Your task to perform on an android device: uninstall "Cash App" Image 0: 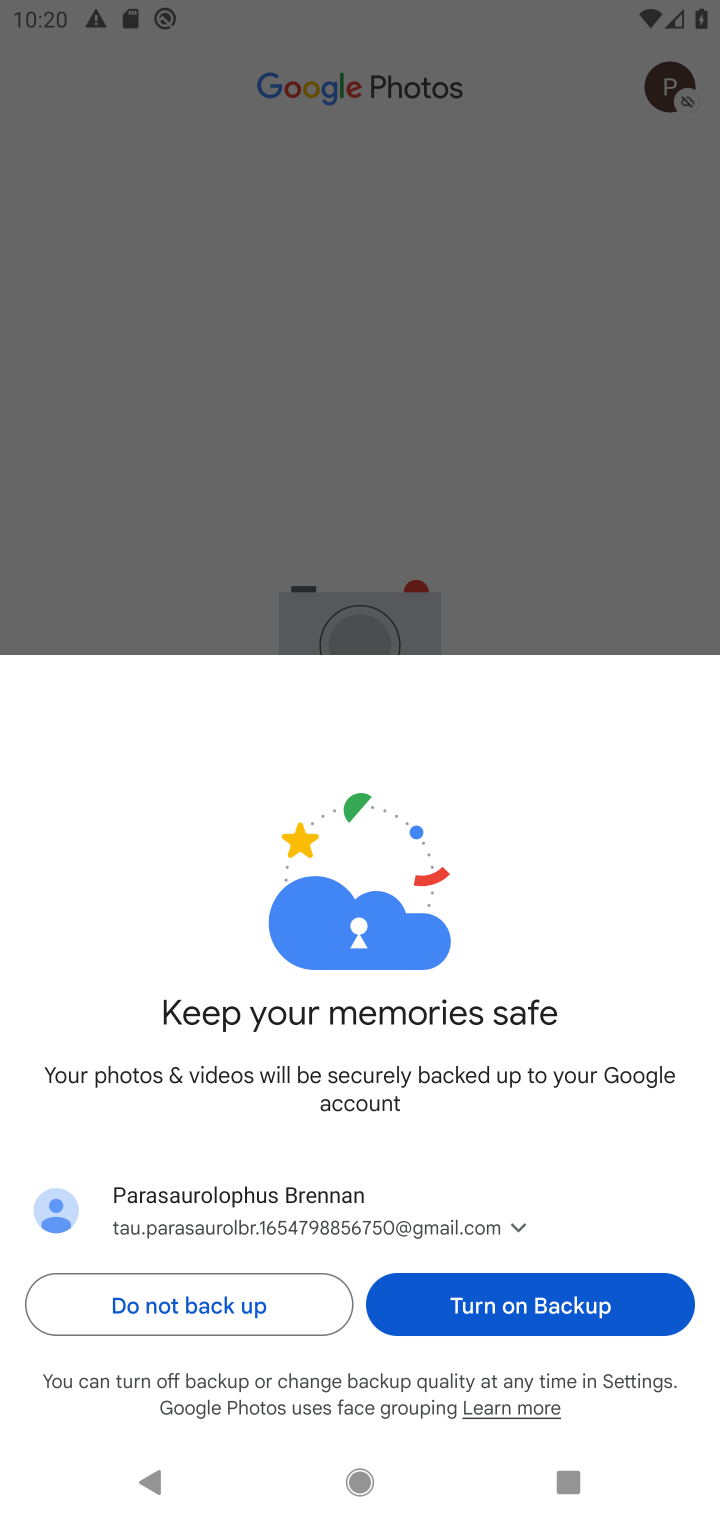
Step 0: press home button
Your task to perform on an android device: uninstall "Cash App" Image 1: 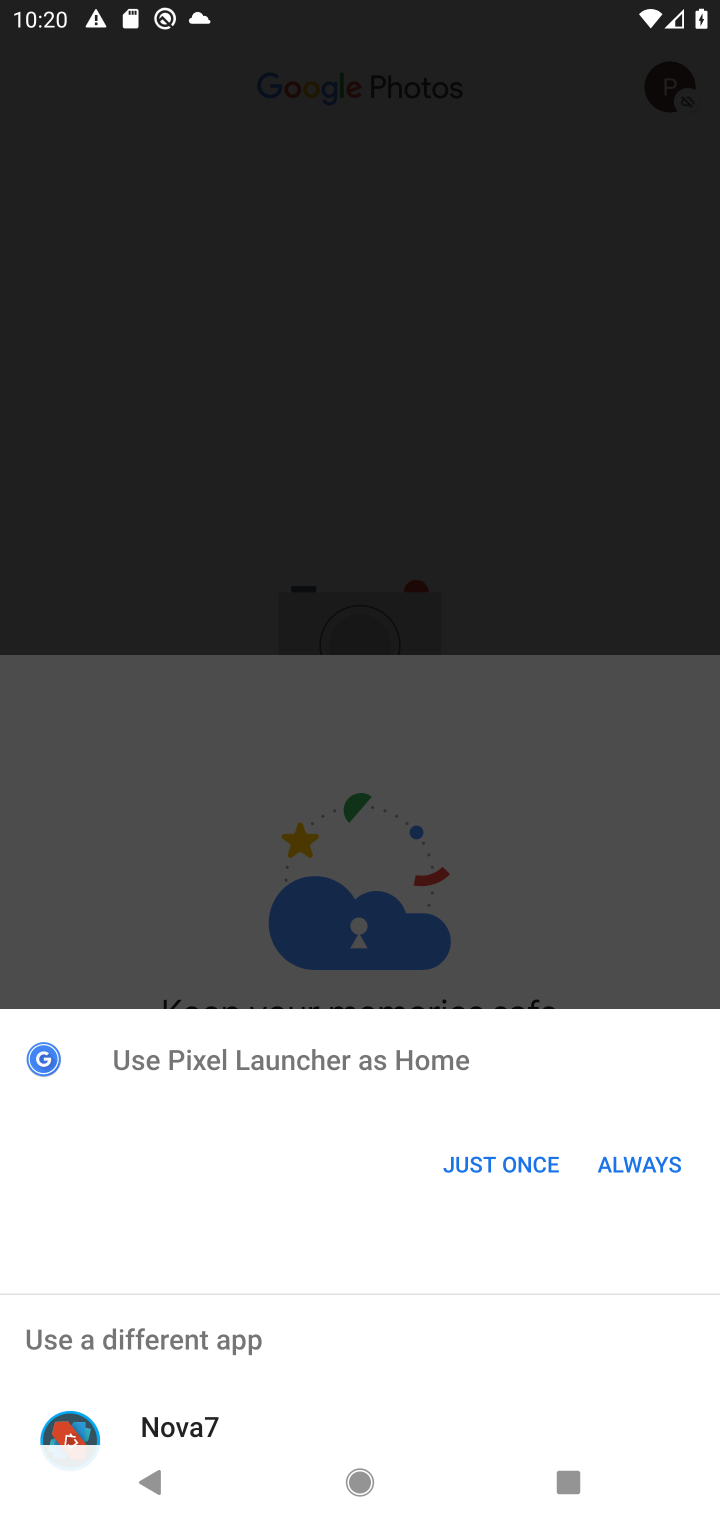
Step 1: click (530, 1161)
Your task to perform on an android device: uninstall "Cash App" Image 2: 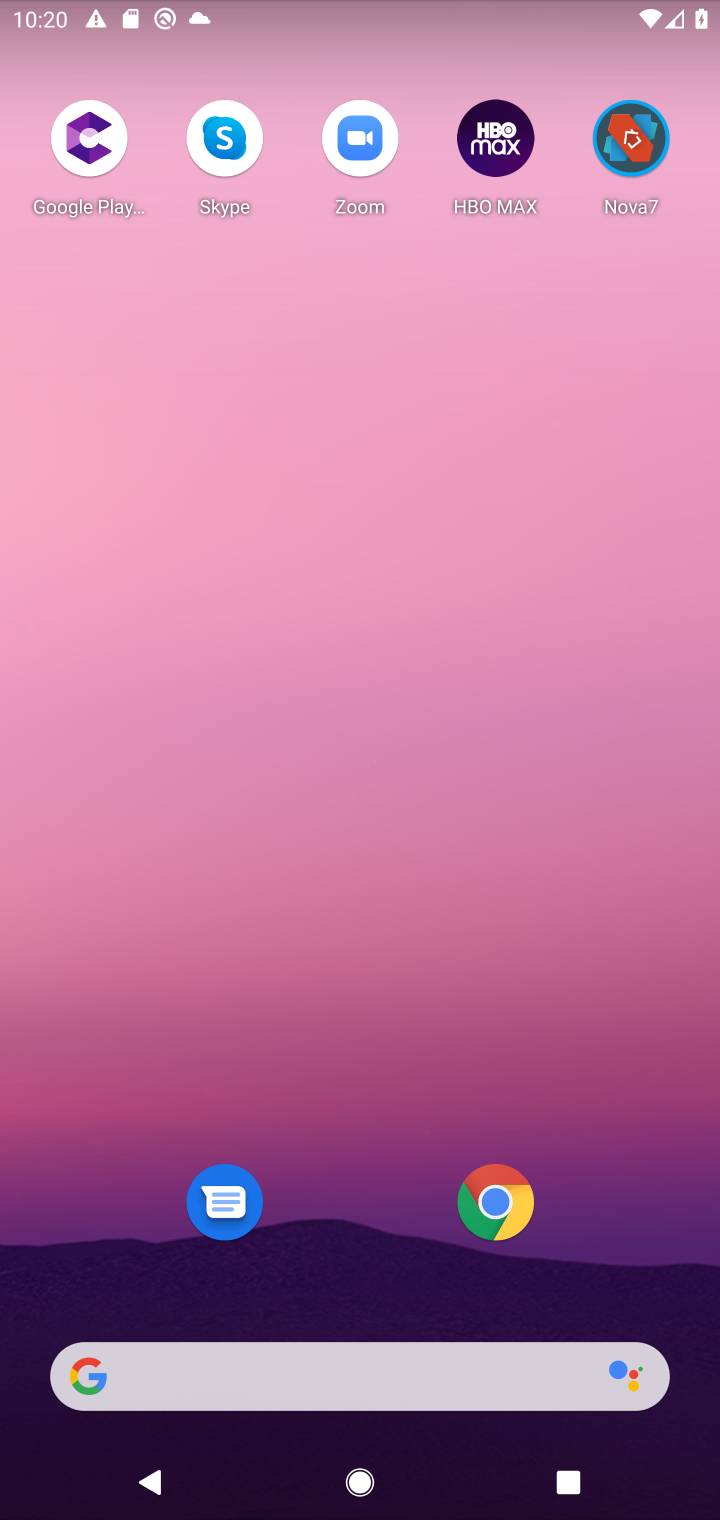
Step 2: click (305, 1392)
Your task to perform on an android device: uninstall "Cash App" Image 3: 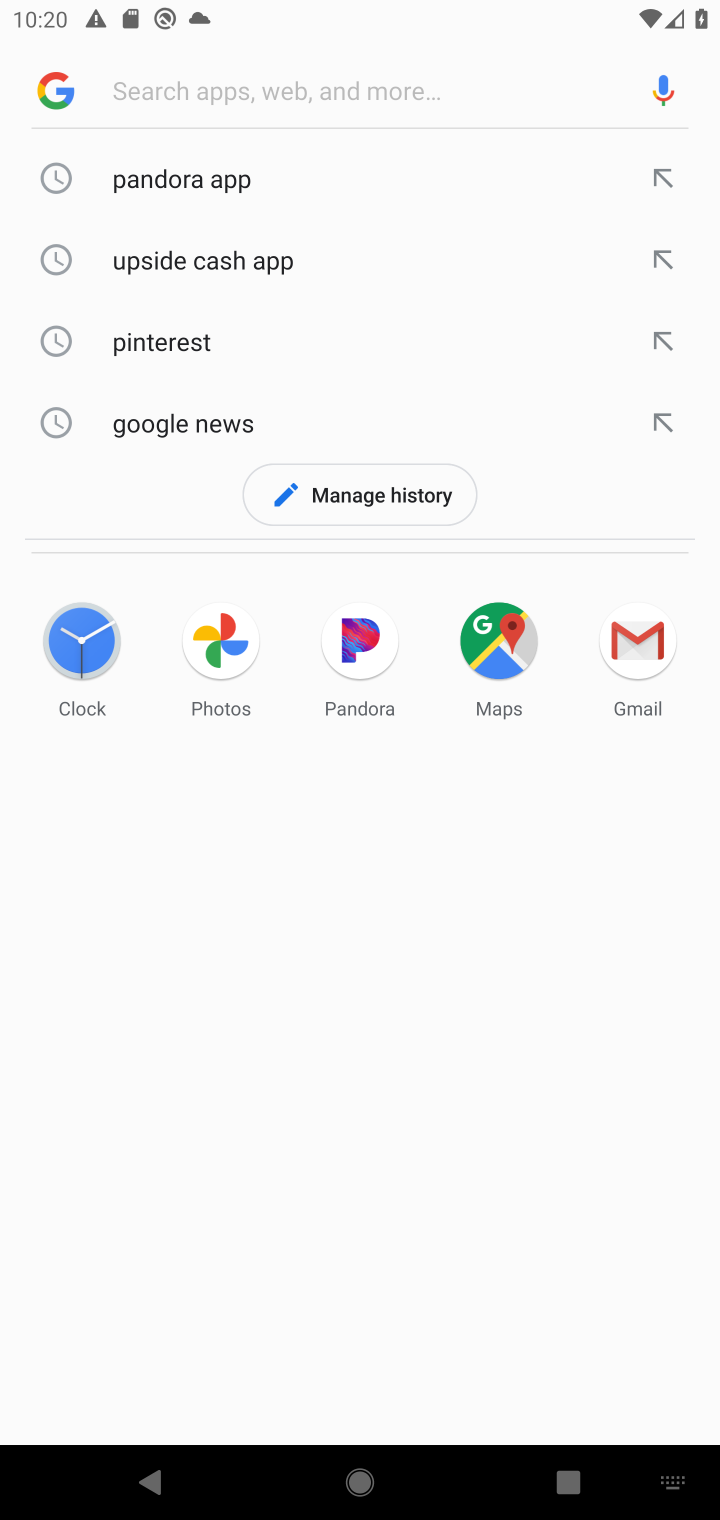
Step 3: type "cash app"
Your task to perform on an android device: uninstall "Cash App" Image 4: 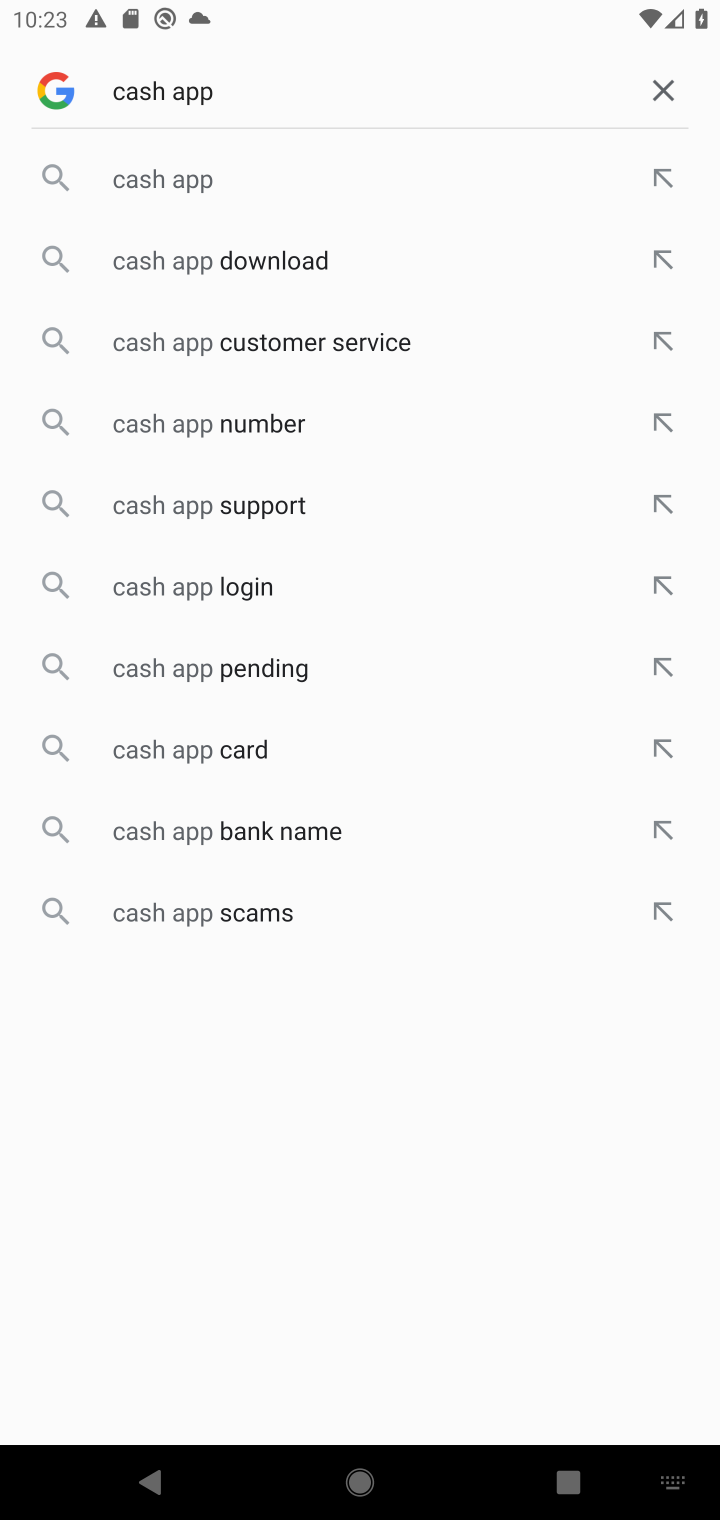
Step 4: click (654, 166)
Your task to perform on an android device: uninstall "Cash App" Image 5: 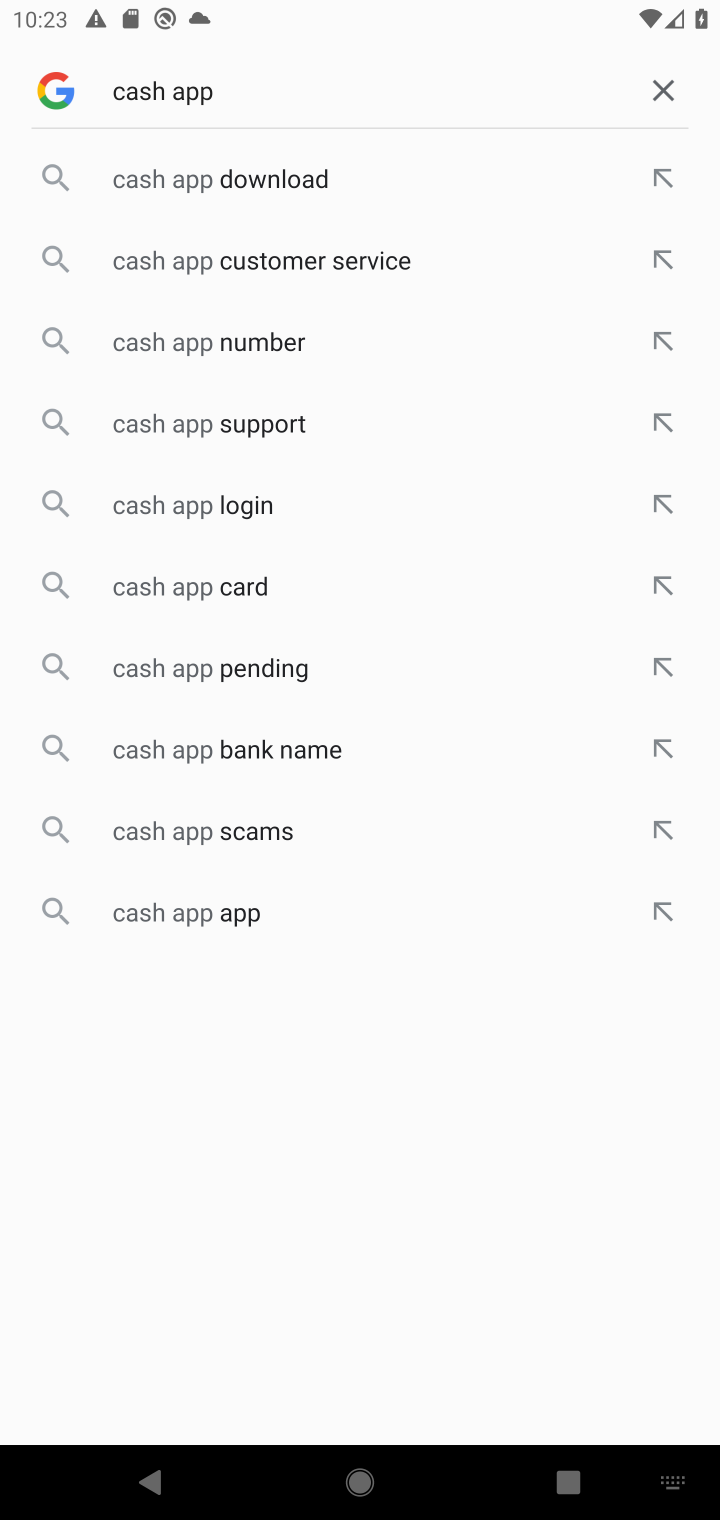
Step 5: click (255, 203)
Your task to perform on an android device: uninstall "Cash App" Image 6: 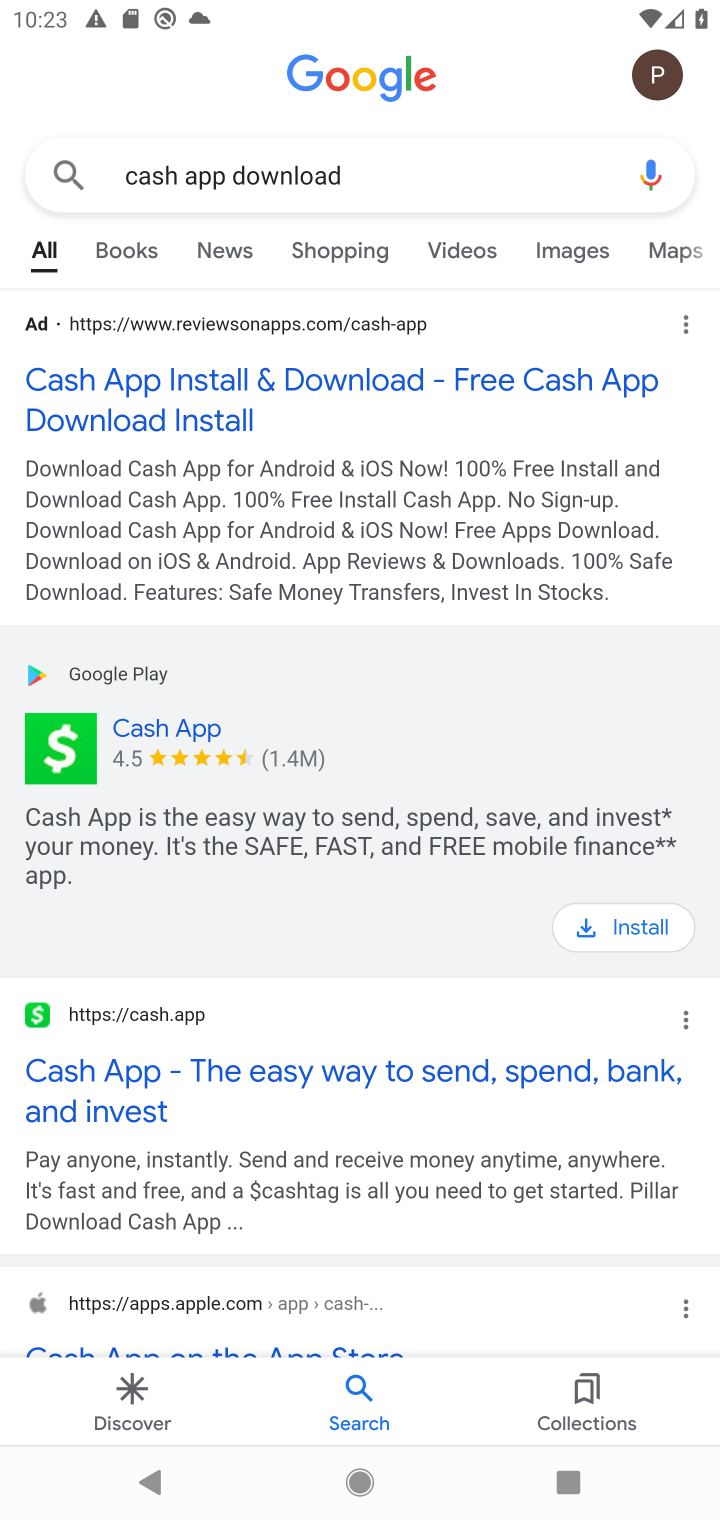
Step 6: click (575, 923)
Your task to perform on an android device: uninstall "Cash App" Image 7: 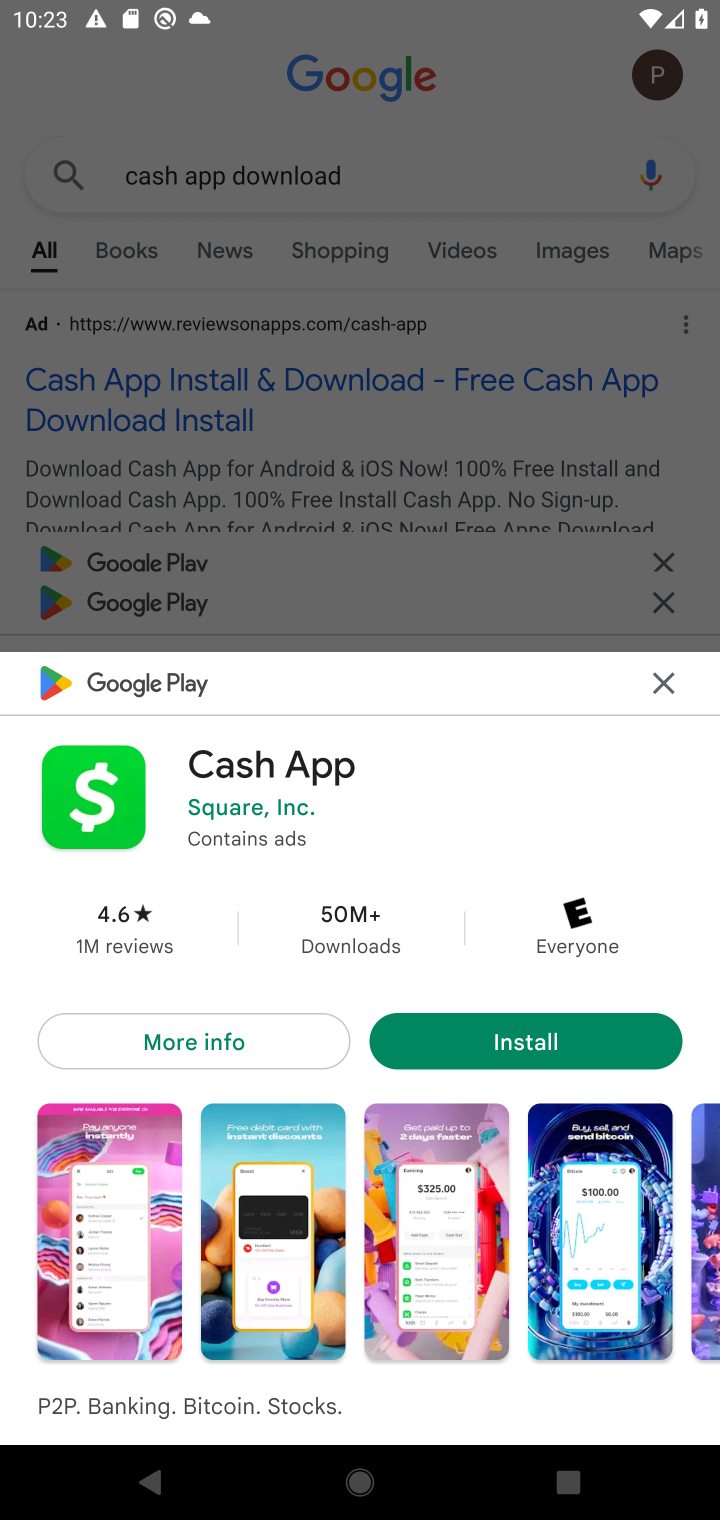
Step 7: click (465, 1041)
Your task to perform on an android device: uninstall "Cash App" Image 8: 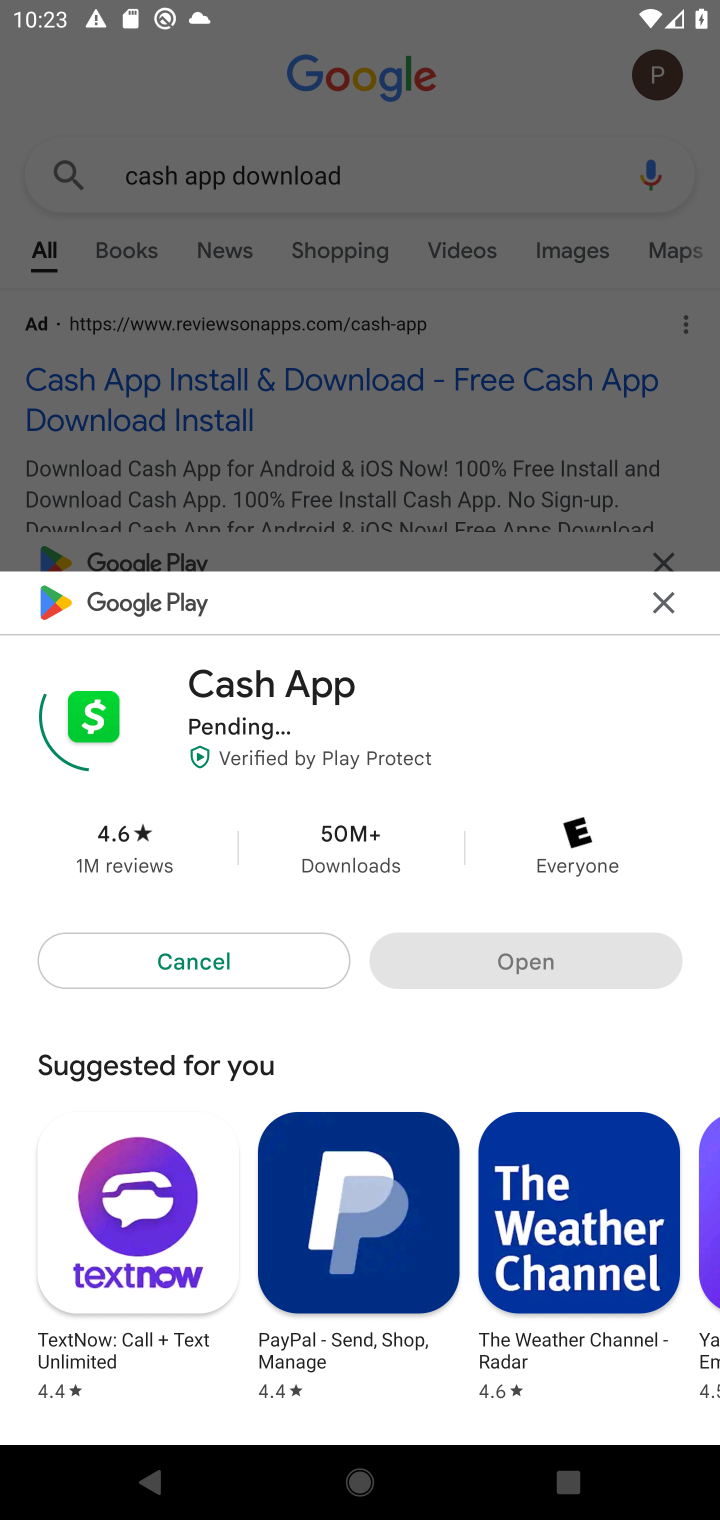
Step 8: task complete